Your task to perform on an android device: turn off location history Image 0: 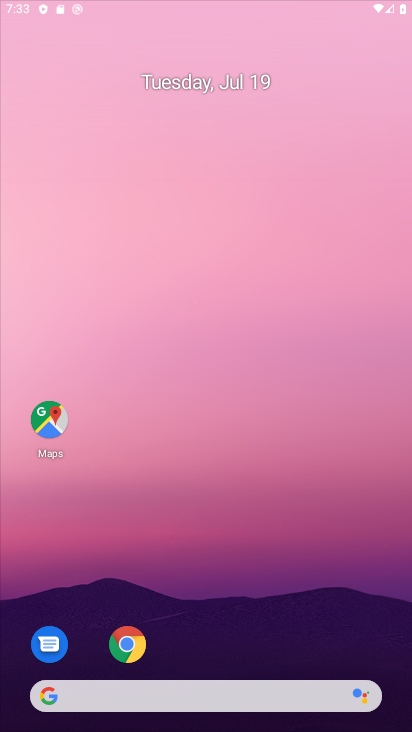
Step 0: click (55, 415)
Your task to perform on an android device: turn off location history Image 1: 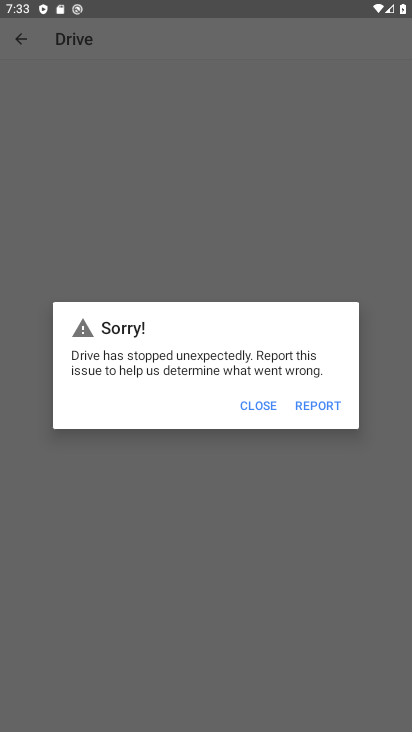
Step 1: click (55, 415)
Your task to perform on an android device: turn off location history Image 2: 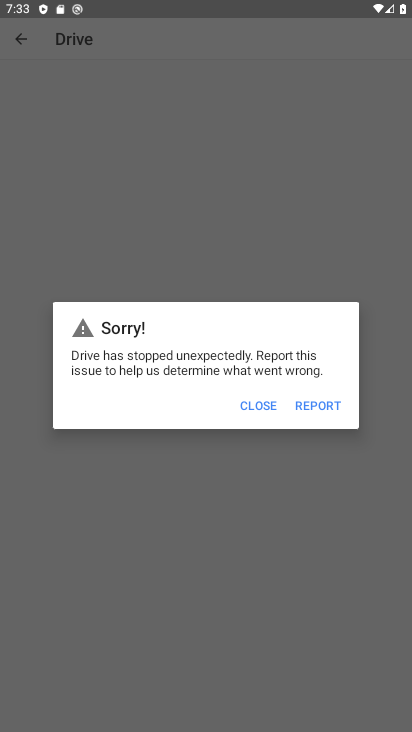
Step 2: click (267, 410)
Your task to perform on an android device: turn off location history Image 3: 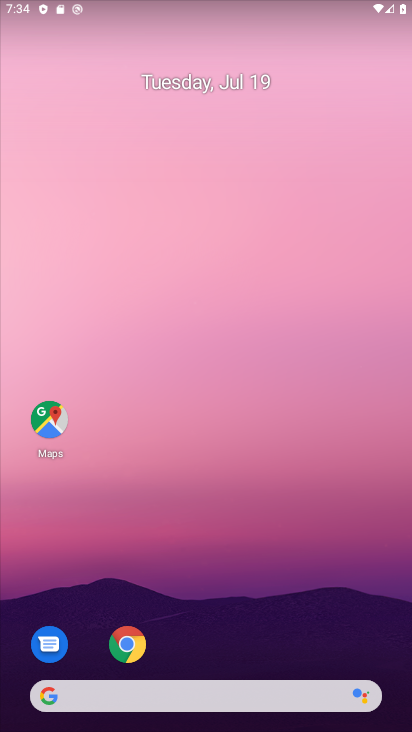
Step 3: drag from (242, 550) to (236, 63)
Your task to perform on an android device: turn off location history Image 4: 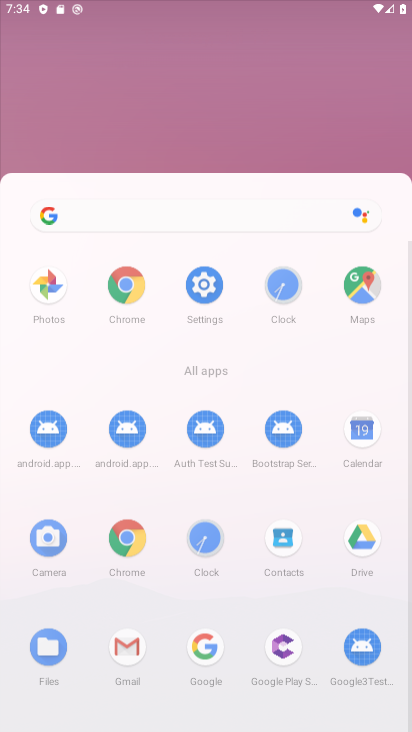
Step 4: drag from (276, 563) to (235, 133)
Your task to perform on an android device: turn off location history Image 5: 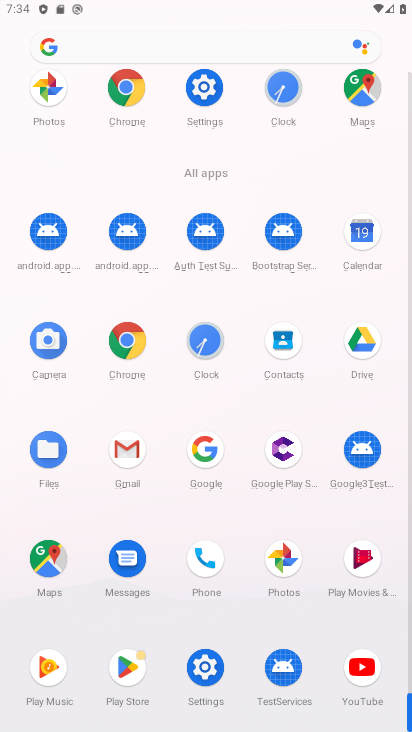
Step 5: click (202, 97)
Your task to perform on an android device: turn off location history Image 6: 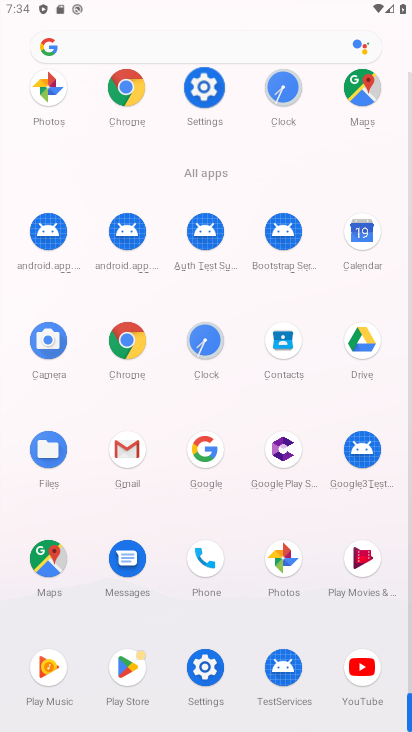
Step 6: click (203, 97)
Your task to perform on an android device: turn off location history Image 7: 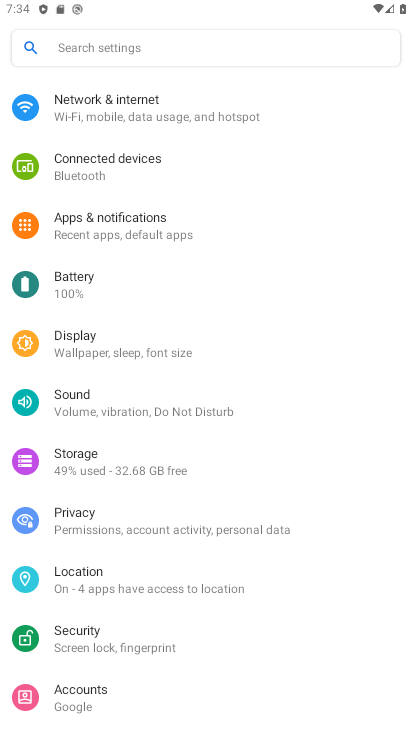
Step 7: click (205, 95)
Your task to perform on an android device: turn off location history Image 8: 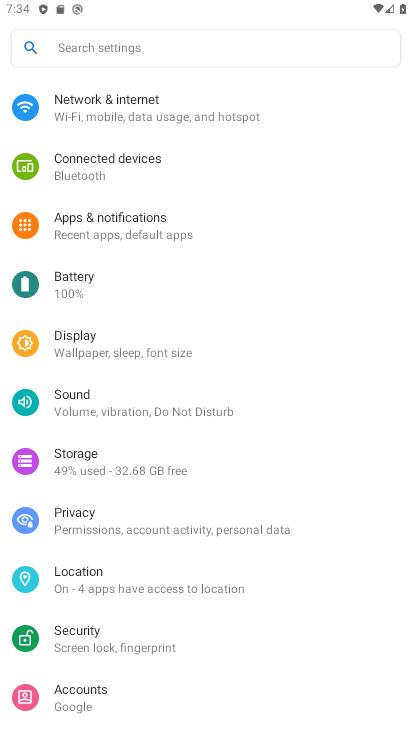
Step 8: click (207, 95)
Your task to perform on an android device: turn off location history Image 9: 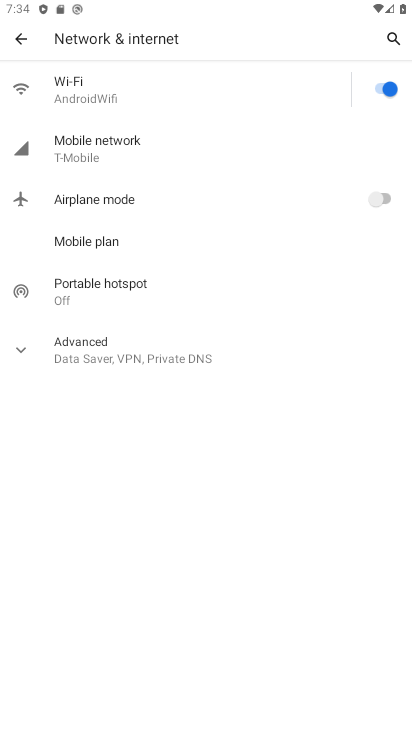
Step 9: click (30, 30)
Your task to perform on an android device: turn off location history Image 10: 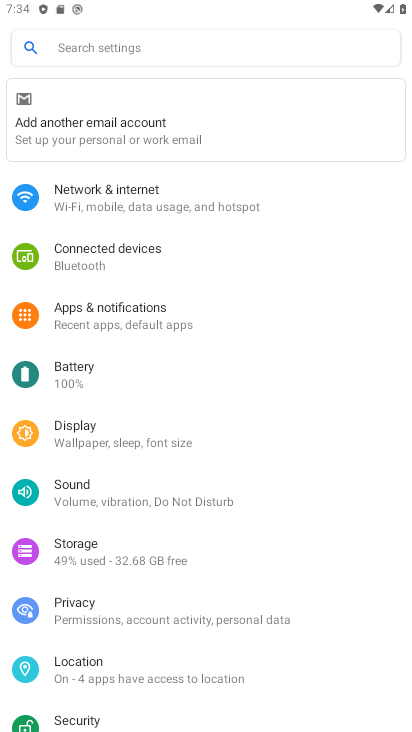
Step 10: click (92, 669)
Your task to perform on an android device: turn off location history Image 11: 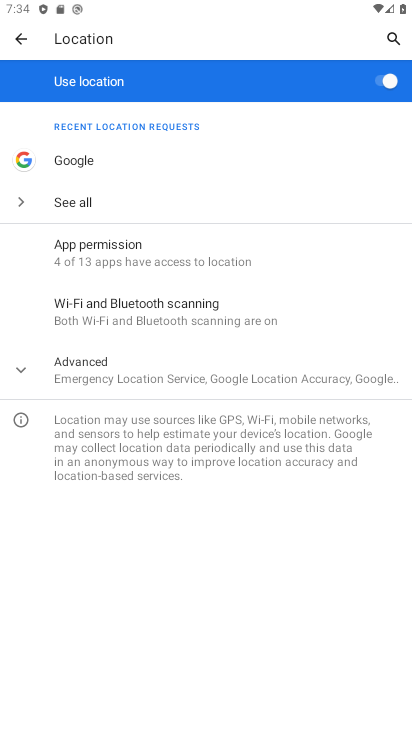
Step 11: click (88, 377)
Your task to perform on an android device: turn off location history Image 12: 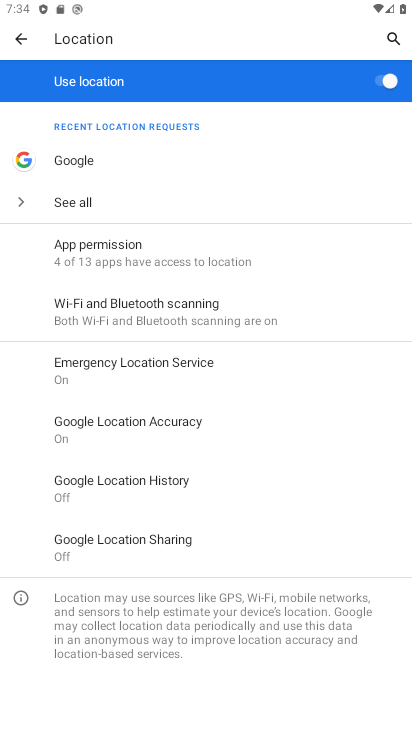
Step 12: click (153, 476)
Your task to perform on an android device: turn off location history Image 13: 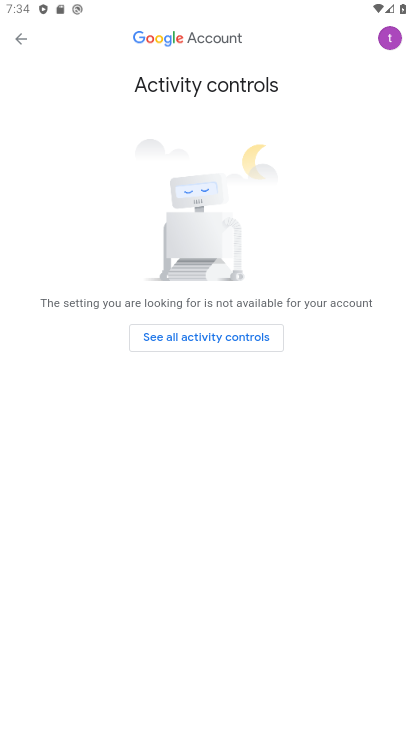
Step 13: click (225, 331)
Your task to perform on an android device: turn off location history Image 14: 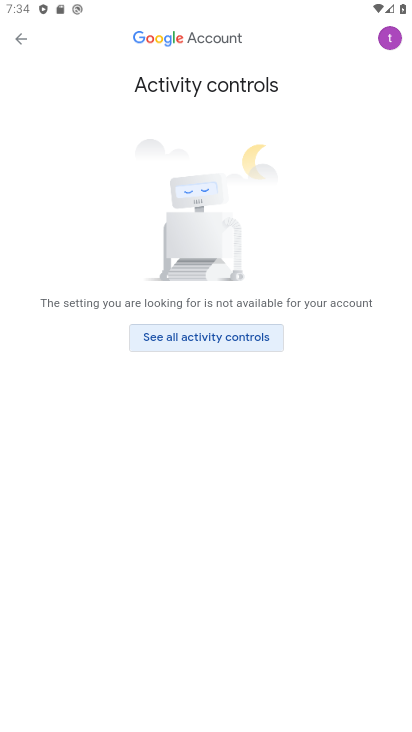
Step 14: click (221, 341)
Your task to perform on an android device: turn off location history Image 15: 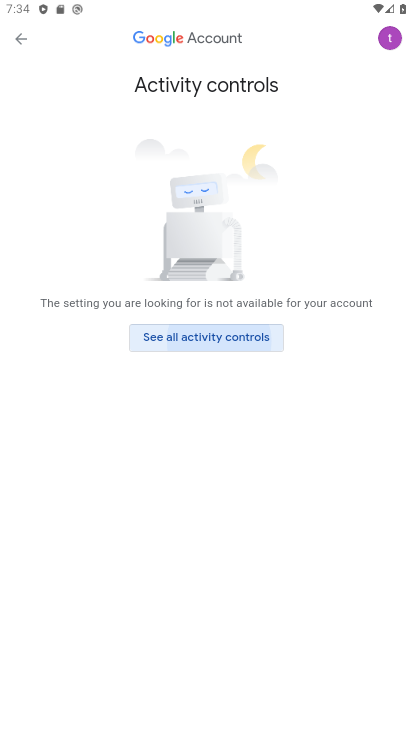
Step 15: click (221, 341)
Your task to perform on an android device: turn off location history Image 16: 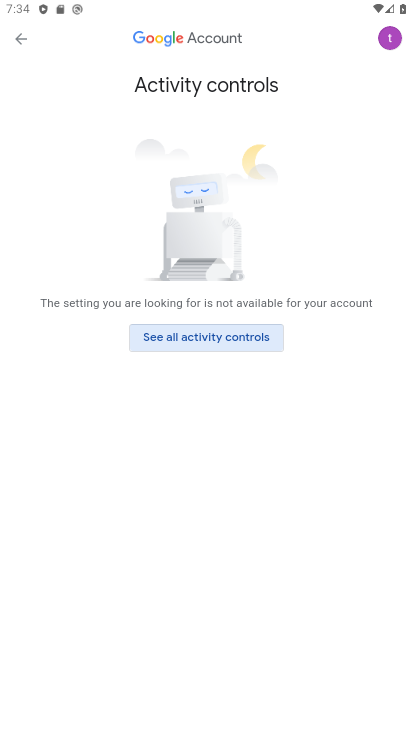
Step 16: click (221, 341)
Your task to perform on an android device: turn off location history Image 17: 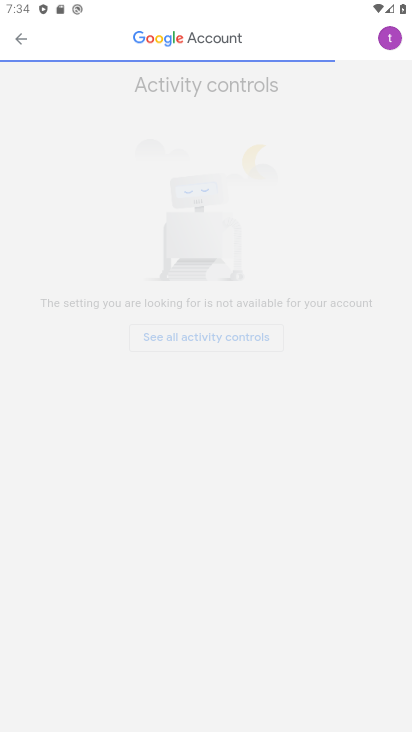
Step 17: click (221, 341)
Your task to perform on an android device: turn off location history Image 18: 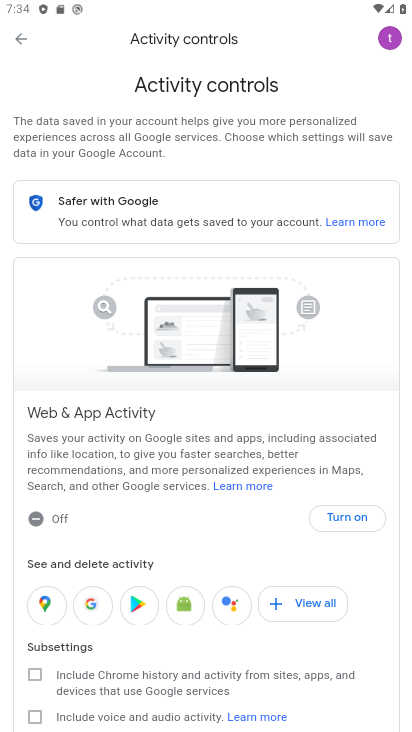
Step 18: task complete